Your task to perform on an android device: Go to Google Image 0: 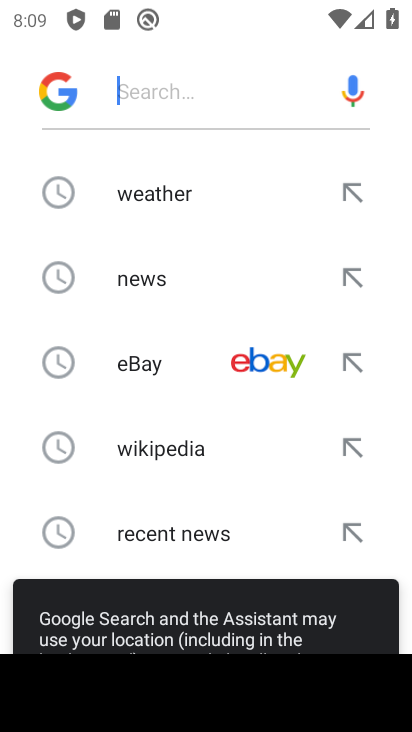
Step 0: press home button
Your task to perform on an android device: Go to Google Image 1: 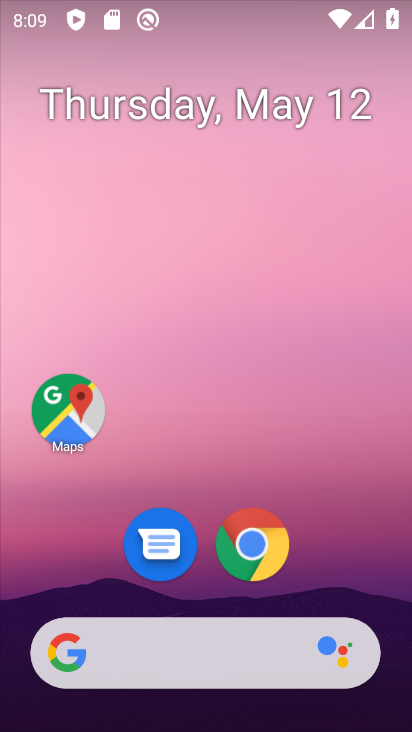
Step 1: drag from (226, 592) to (122, 14)
Your task to perform on an android device: Go to Google Image 2: 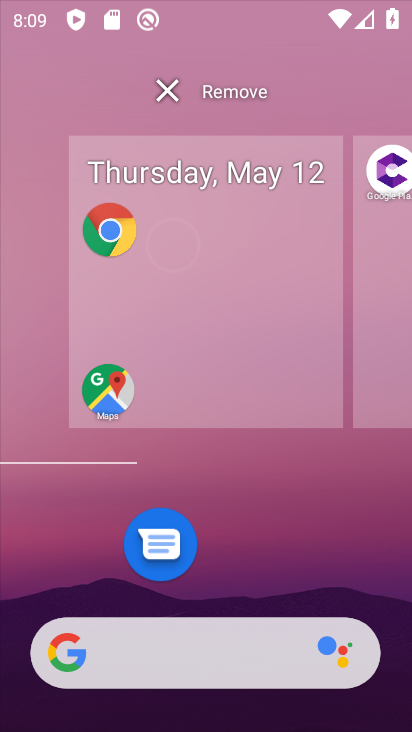
Step 2: click (220, 465)
Your task to perform on an android device: Go to Google Image 3: 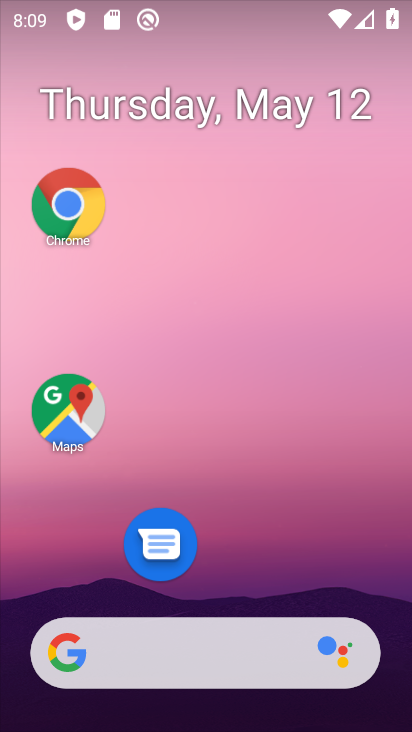
Step 3: drag from (254, 619) to (254, 4)
Your task to perform on an android device: Go to Google Image 4: 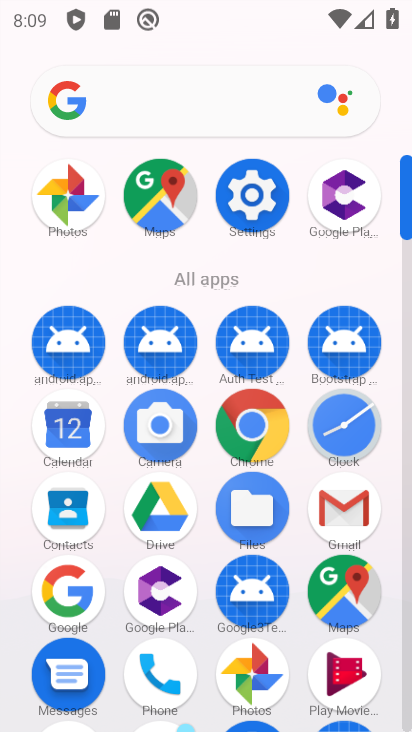
Step 4: click (388, 121)
Your task to perform on an android device: Go to Google Image 5: 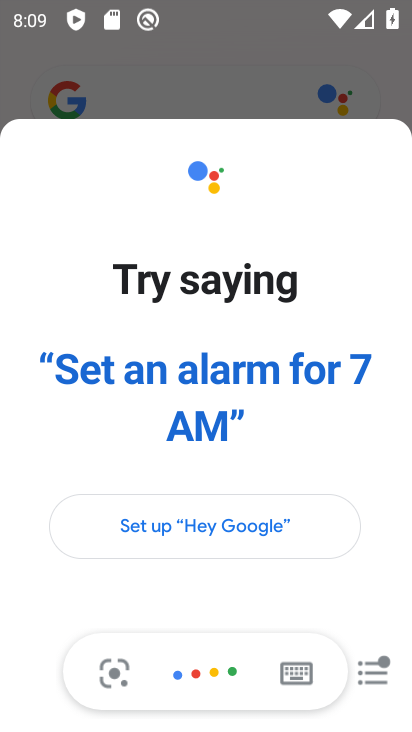
Step 5: click (145, 78)
Your task to perform on an android device: Go to Google Image 6: 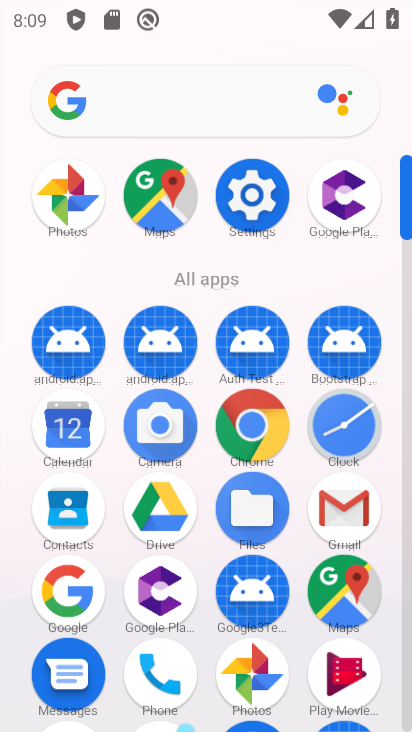
Step 6: click (59, 568)
Your task to perform on an android device: Go to Google Image 7: 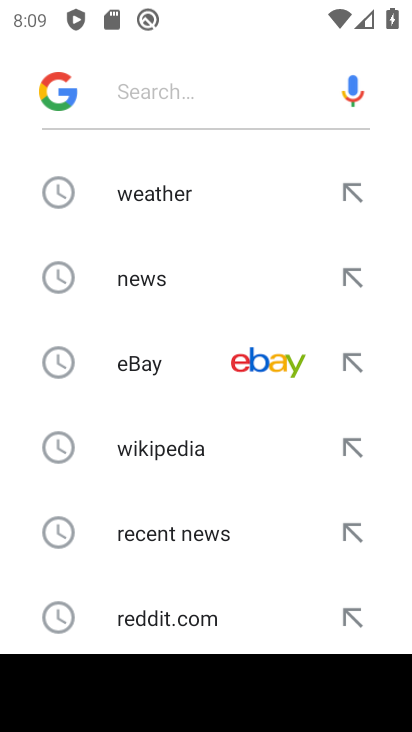
Step 7: task complete